Your task to perform on an android device: What is the news today? Image 0: 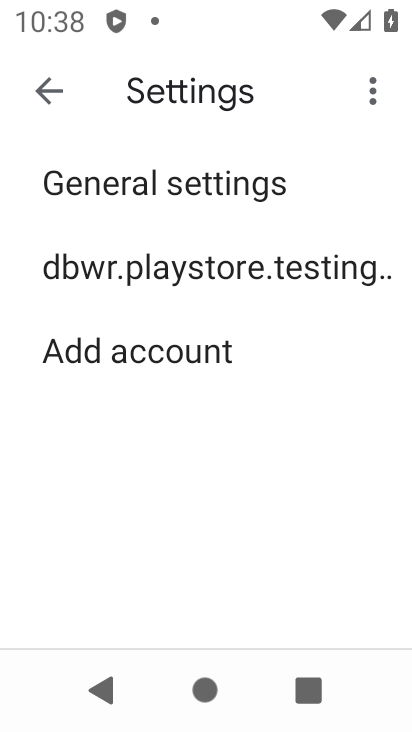
Step 0: press home button
Your task to perform on an android device: What is the news today? Image 1: 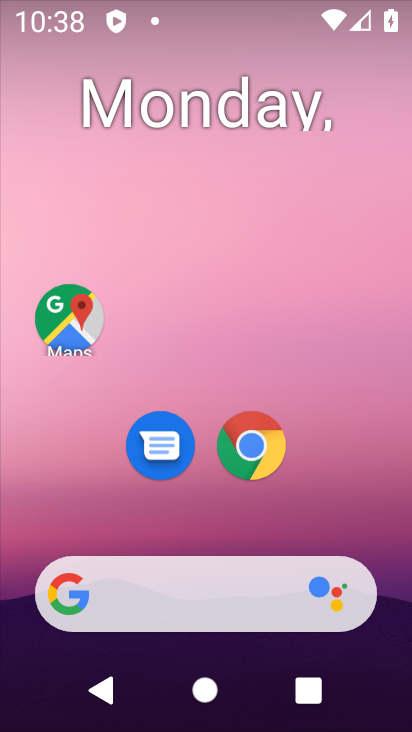
Step 1: click (291, 460)
Your task to perform on an android device: What is the news today? Image 2: 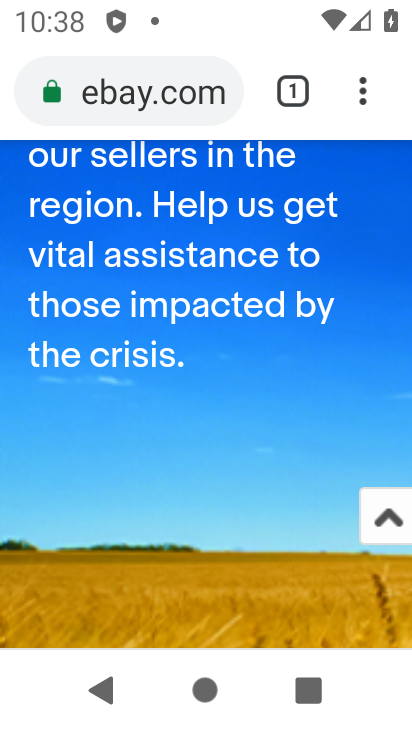
Step 2: click (300, 96)
Your task to perform on an android device: What is the news today? Image 3: 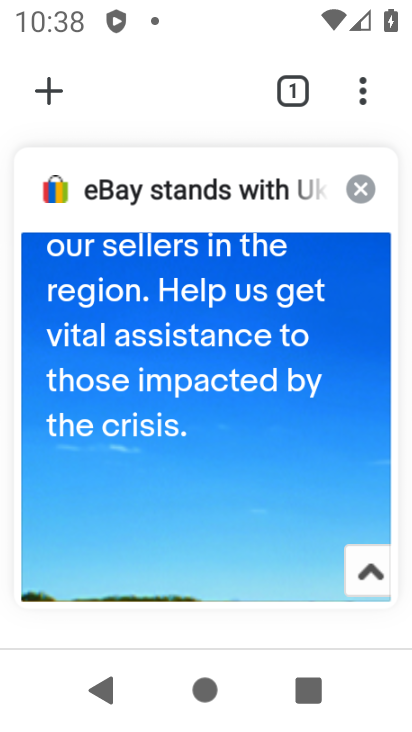
Step 3: click (56, 87)
Your task to perform on an android device: What is the news today? Image 4: 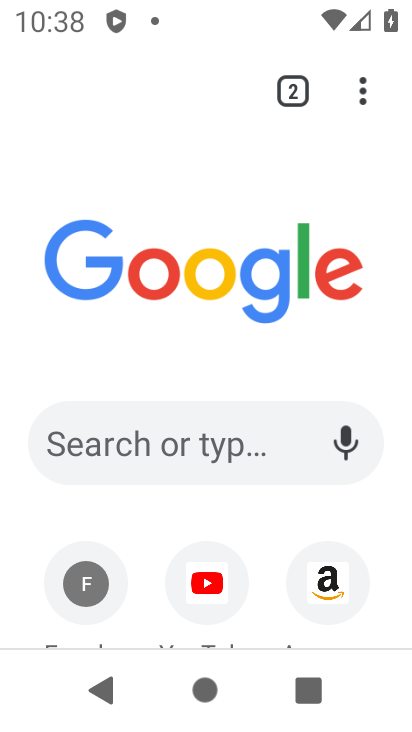
Step 4: click (160, 445)
Your task to perform on an android device: What is the news today? Image 5: 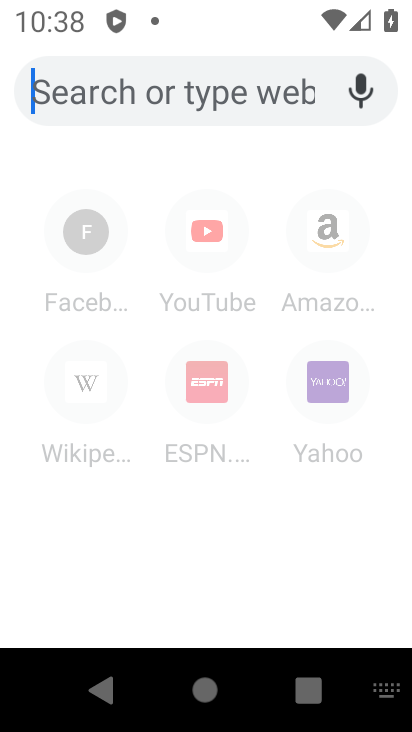
Step 5: type "what is the news today?"
Your task to perform on an android device: What is the news today? Image 6: 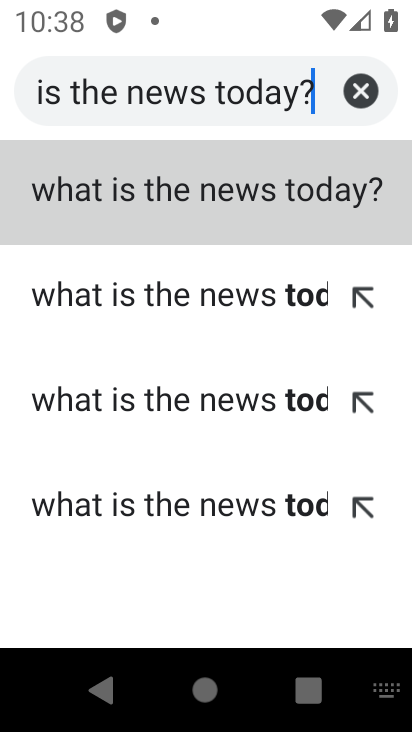
Step 6: click (151, 199)
Your task to perform on an android device: What is the news today? Image 7: 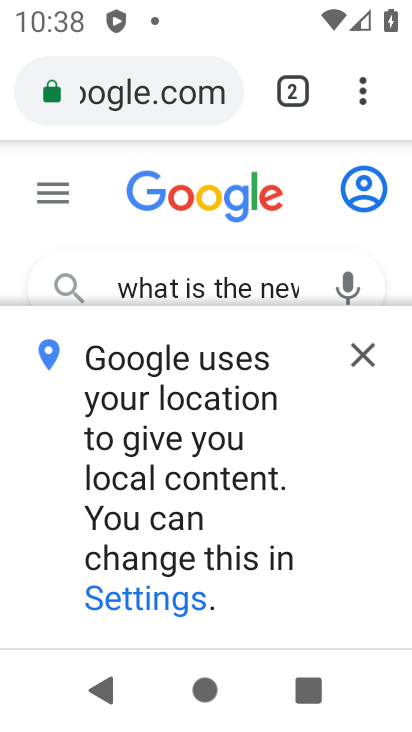
Step 7: click (365, 359)
Your task to perform on an android device: What is the news today? Image 8: 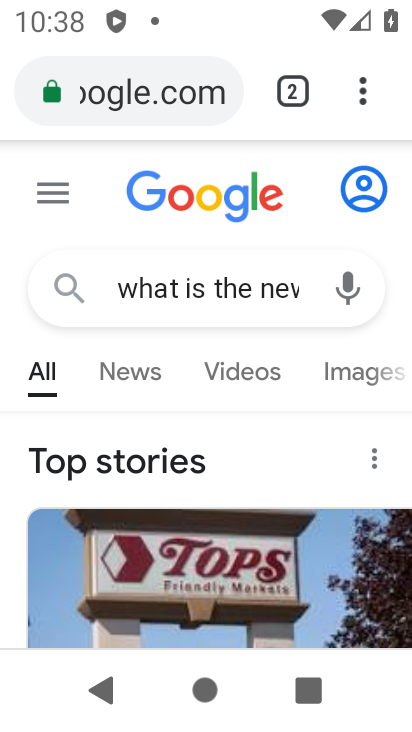
Step 8: task complete